Your task to perform on an android device: What's the weather going to be this weekend? Image 0: 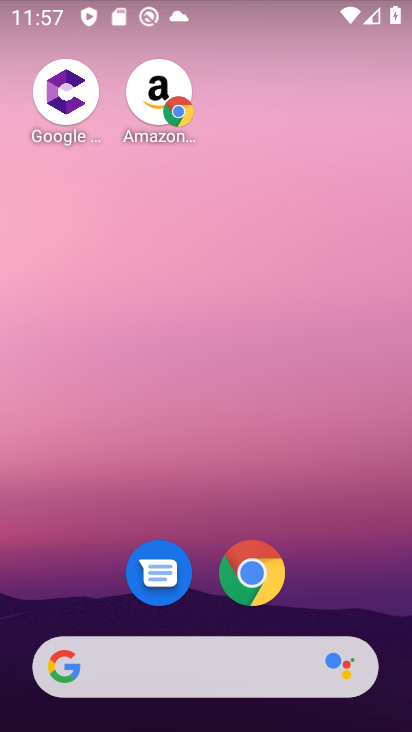
Step 0: drag from (342, 565) to (252, 113)
Your task to perform on an android device: What's the weather going to be this weekend? Image 1: 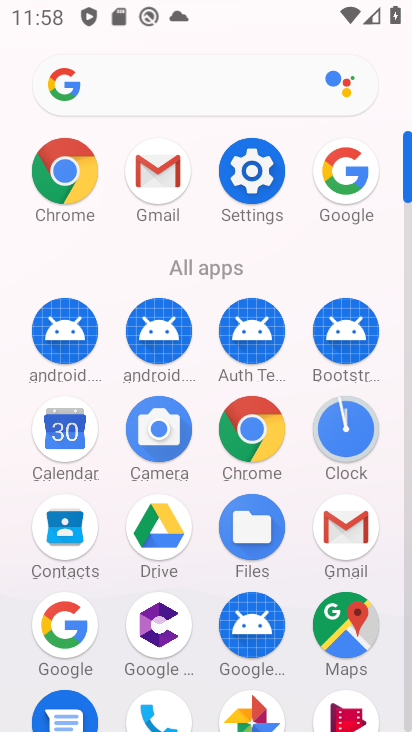
Step 1: click (78, 92)
Your task to perform on an android device: What's the weather going to be this weekend? Image 2: 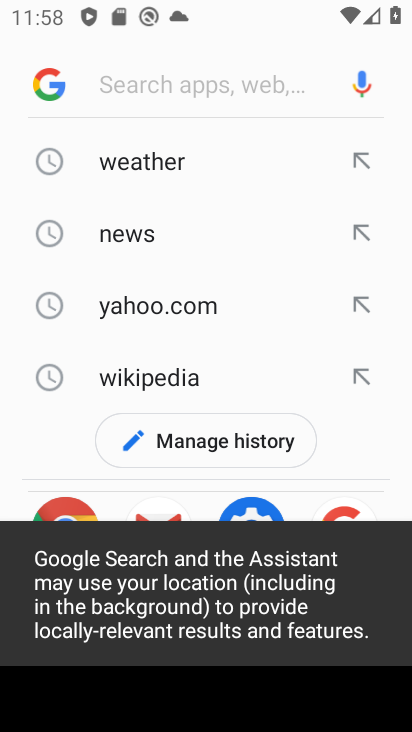
Step 2: click (66, 87)
Your task to perform on an android device: What's the weather going to be this weekend? Image 3: 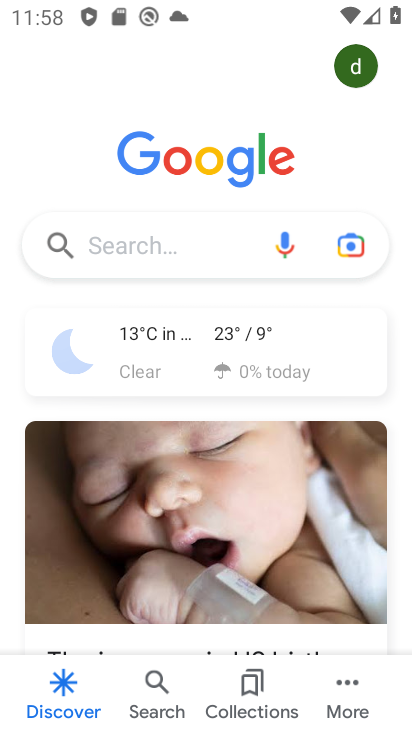
Step 3: drag from (339, 606) to (332, 309)
Your task to perform on an android device: What's the weather going to be this weekend? Image 4: 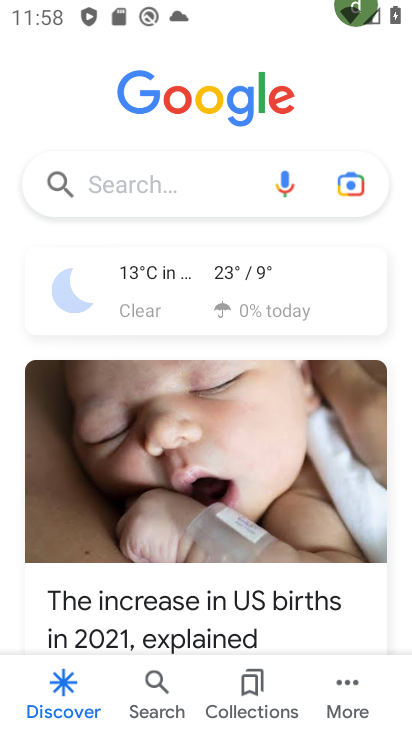
Step 4: click (204, 277)
Your task to perform on an android device: What's the weather going to be this weekend? Image 5: 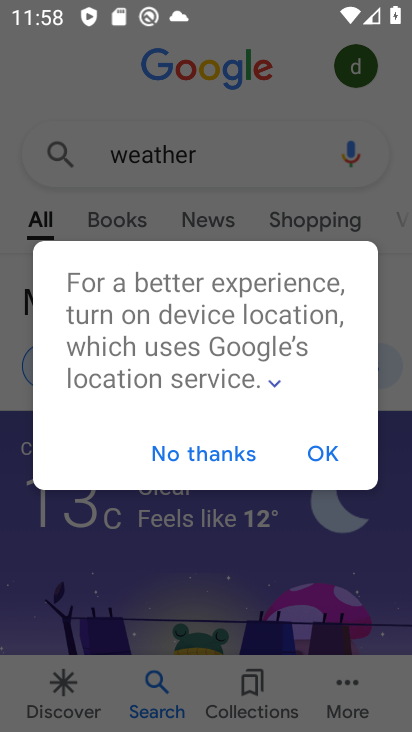
Step 5: task complete